Your task to perform on an android device: turn off wifi Image 0: 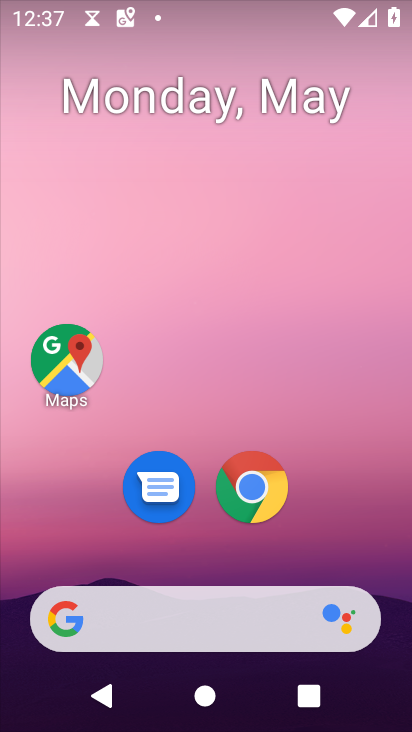
Step 0: drag from (319, 537) to (313, 1)
Your task to perform on an android device: turn off wifi Image 1: 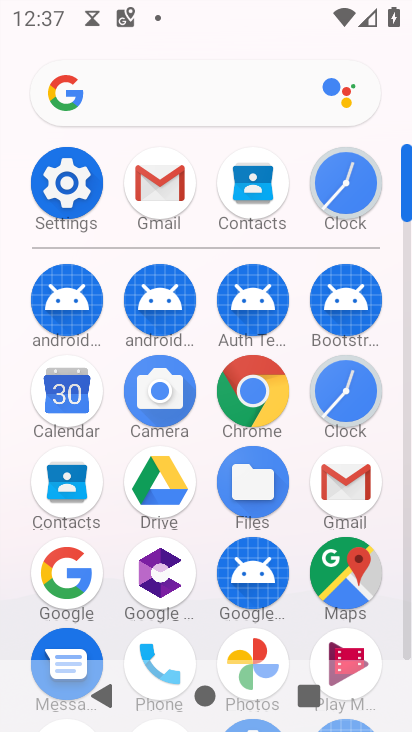
Step 1: click (61, 182)
Your task to perform on an android device: turn off wifi Image 2: 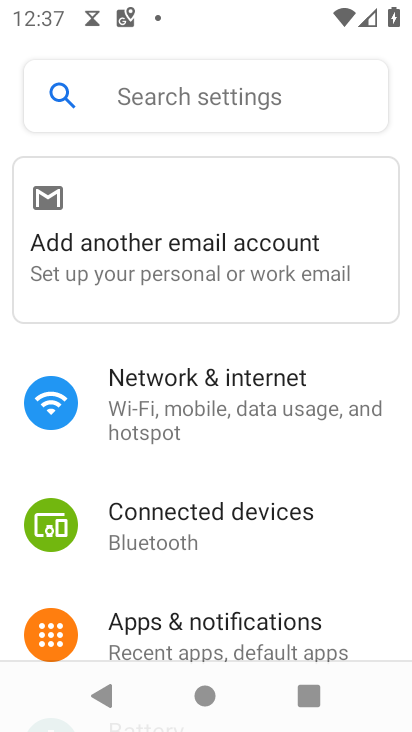
Step 2: click (202, 410)
Your task to perform on an android device: turn off wifi Image 3: 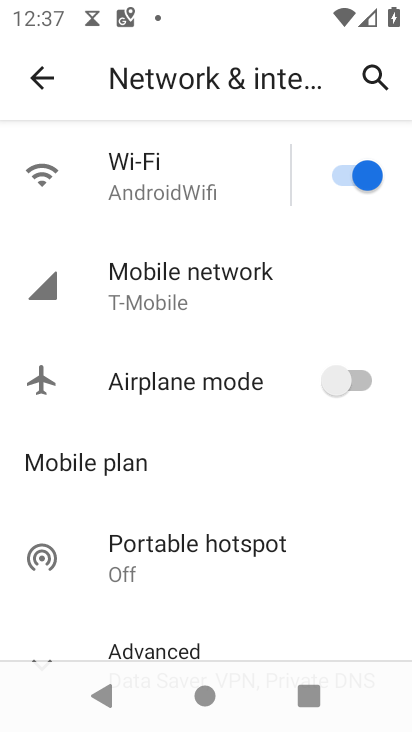
Step 3: click (347, 188)
Your task to perform on an android device: turn off wifi Image 4: 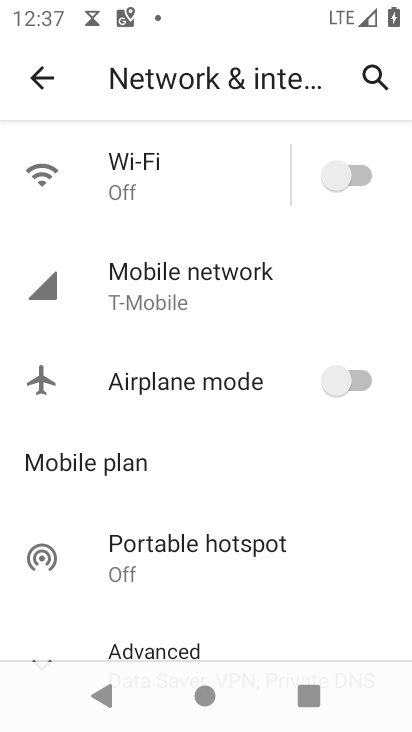
Step 4: task complete